Your task to perform on an android device: see sites visited before in the chrome app Image 0: 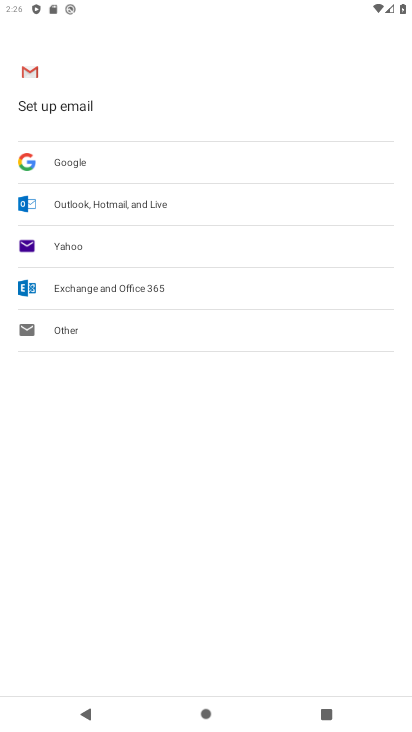
Step 0: press home button
Your task to perform on an android device: see sites visited before in the chrome app Image 1: 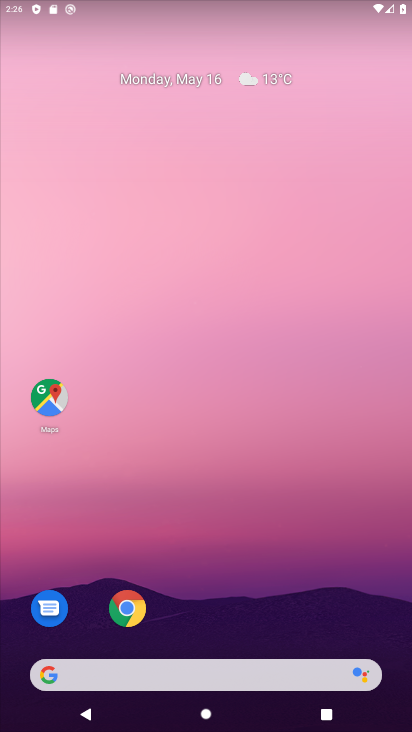
Step 1: click (120, 613)
Your task to perform on an android device: see sites visited before in the chrome app Image 2: 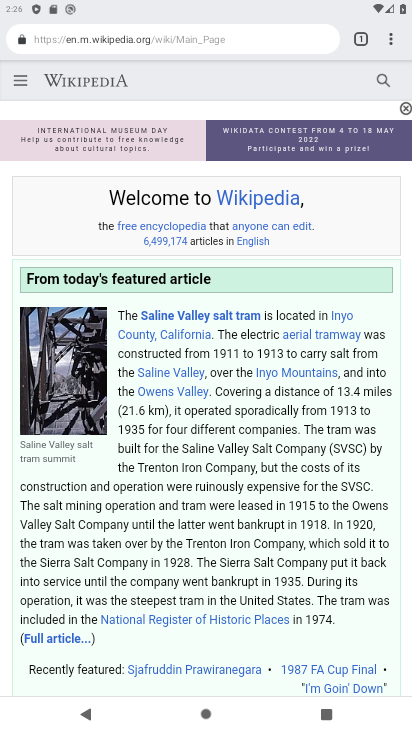
Step 2: click (390, 42)
Your task to perform on an android device: see sites visited before in the chrome app Image 3: 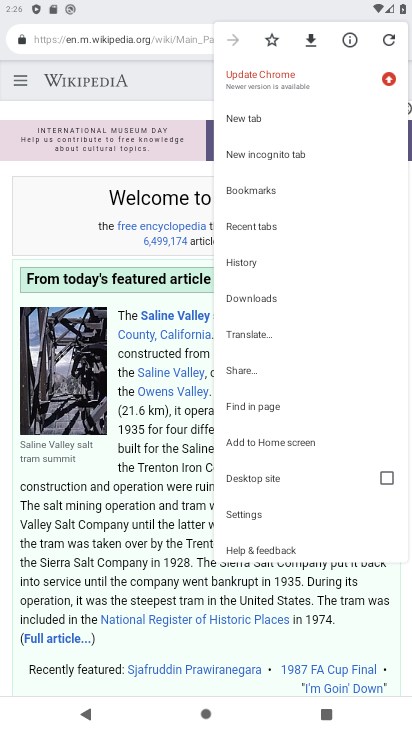
Step 3: click (260, 272)
Your task to perform on an android device: see sites visited before in the chrome app Image 4: 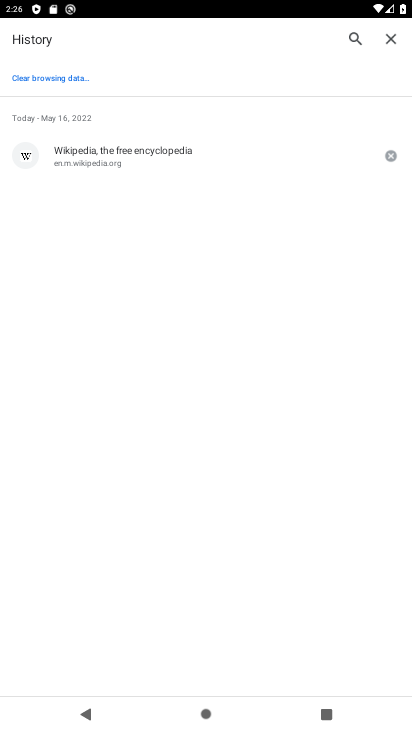
Step 4: task complete